Your task to perform on an android device: open a bookmark in the chrome app Image 0: 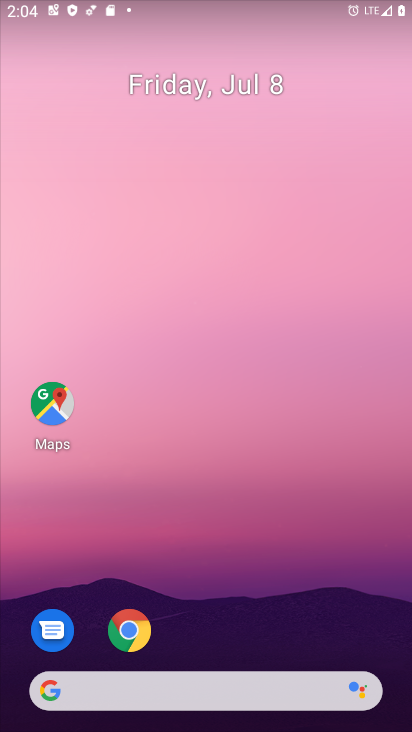
Step 0: press home button
Your task to perform on an android device: open a bookmark in the chrome app Image 1: 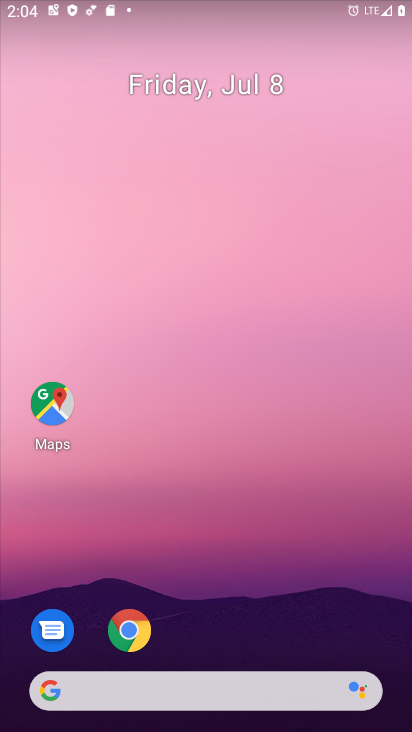
Step 1: click (127, 622)
Your task to perform on an android device: open a bookmark in the chrome app Image 2: 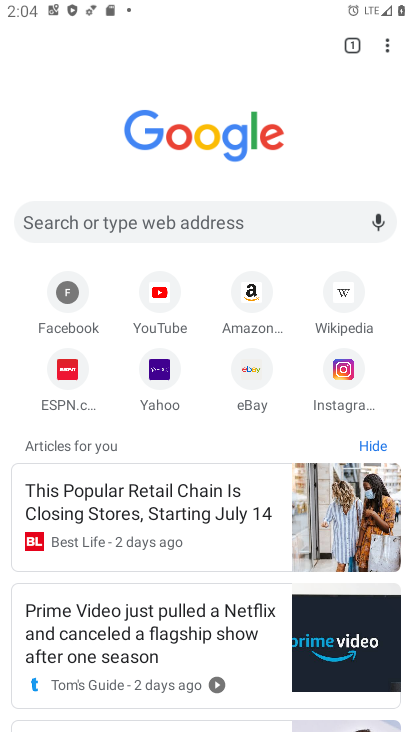
Step 2: click (387, 47)
Your task to perform on an android device: open a bookmark in the chrome app Image 3: 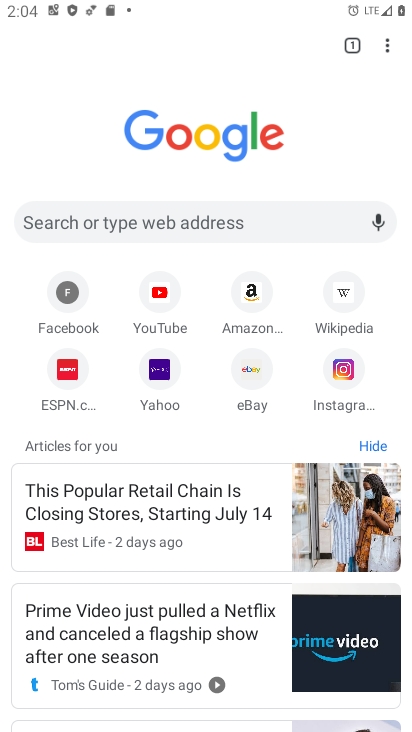
Step 3: click (386, 44)
Your task to perform on an android device: open a bookmark in the chrome app Image 4: 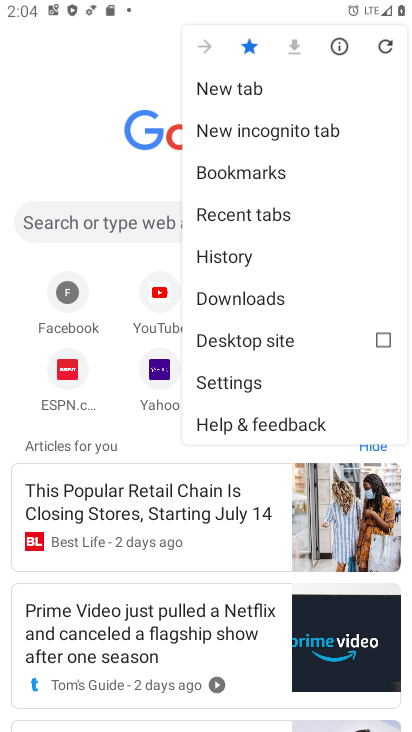
Step 4: click (264, 169)
Your task to perform on an android device: open a bookmark in the chrome app Image 5: 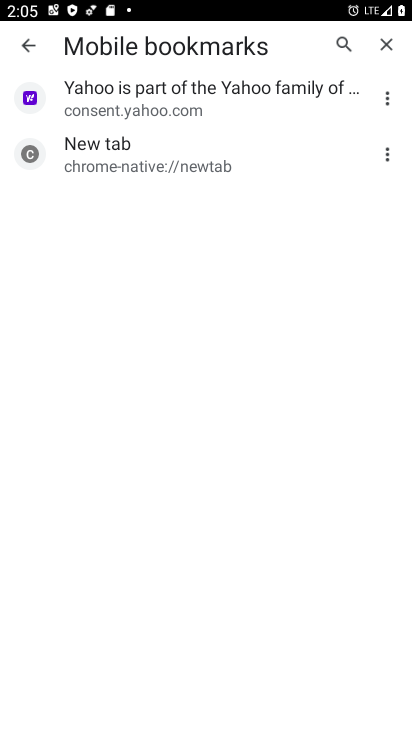
Step 5: task complete